Your task to perform on an android device: change alarm snooze length Image 0: 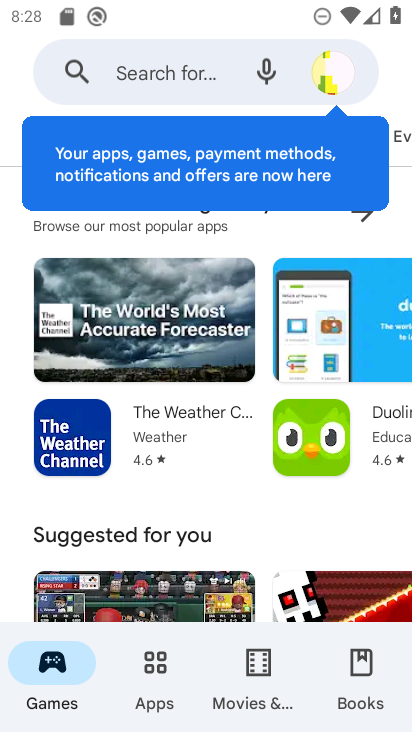
Step 0: press home button
Your task to perform on an android device: change alarm snooze length Image 1: 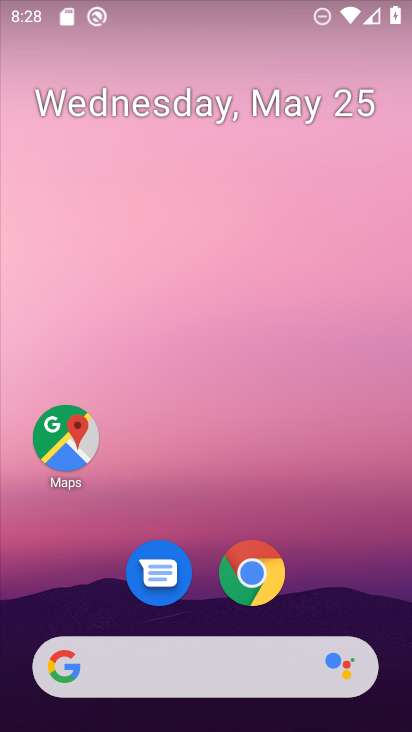
Step 1: drag from (392, 716) to (357, 198)
Your task to perform on an android device: change alarm snooze length Image 2: 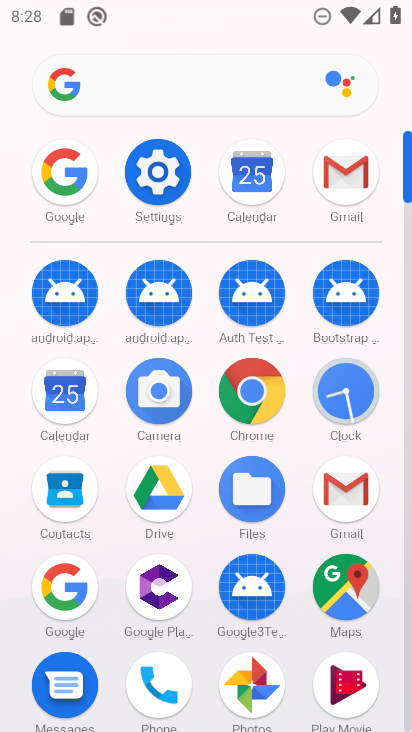
Step 2: click (337, 382)
Your task to perform on an android device: change alarm snooze length Image 3: 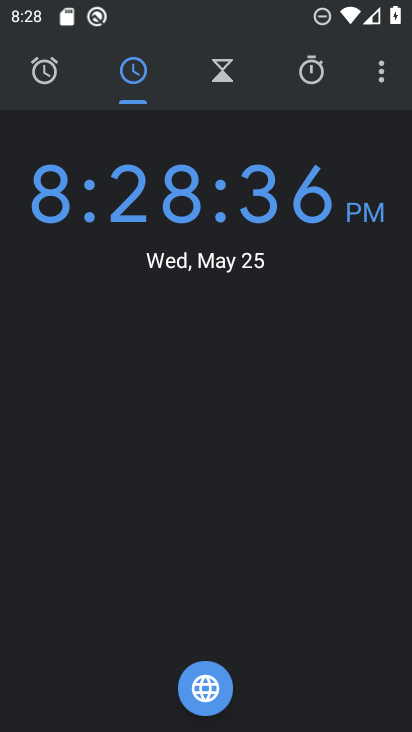
Step 3: click (382, 70)
Your task to perform on an android device: change alarm snooze length Image 4: 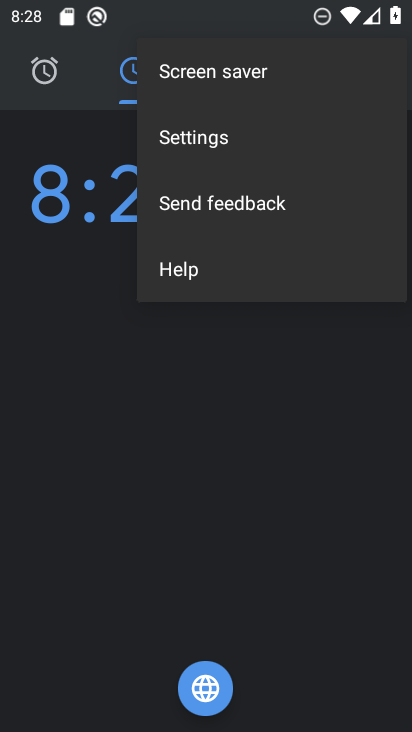
Step 4: click (211, 137)
Your task to perform on an android device: change alarm snooze length Image 5: 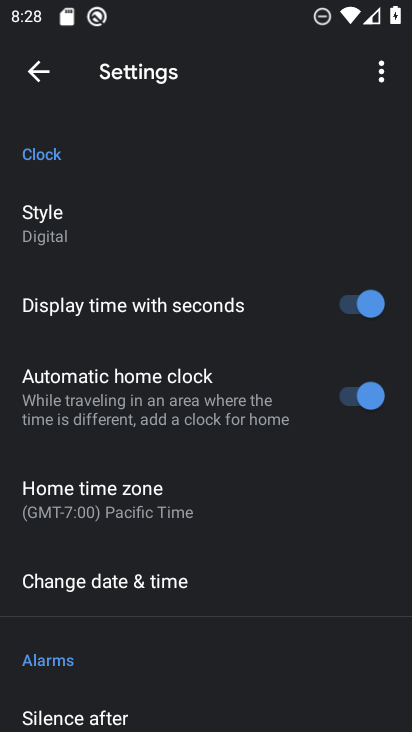
Step 5: drag from (184, 696) to (185, 335)
Your task to perform on an android device: change alarm snooze length Image 6: 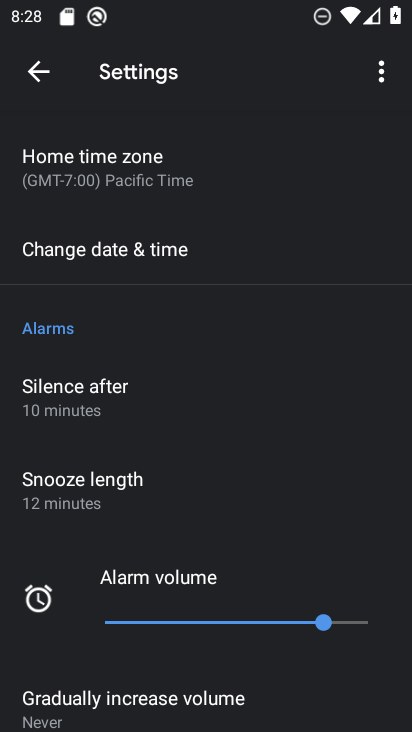
Step 6: click (104, 480)
Your task to perform on an android device: change alarm snooze length Image 7: 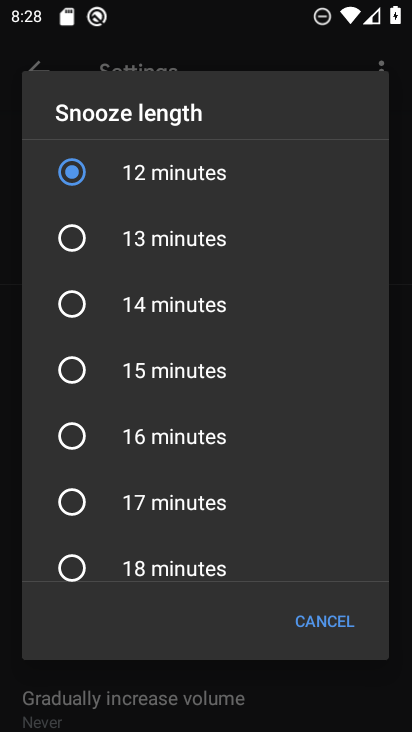
Step 7: click (79, 246)
Your task to perform on an android device: change alarm snooze length Image 8: 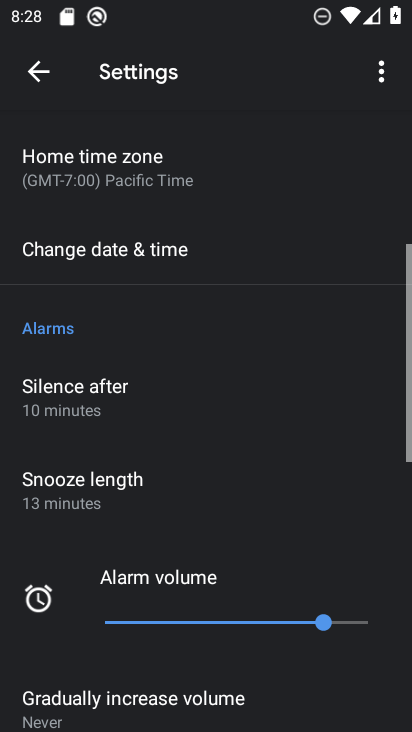
Step 8: task complete